Your task to perform on an android device: uninstall "Move to iOS" Image 0: 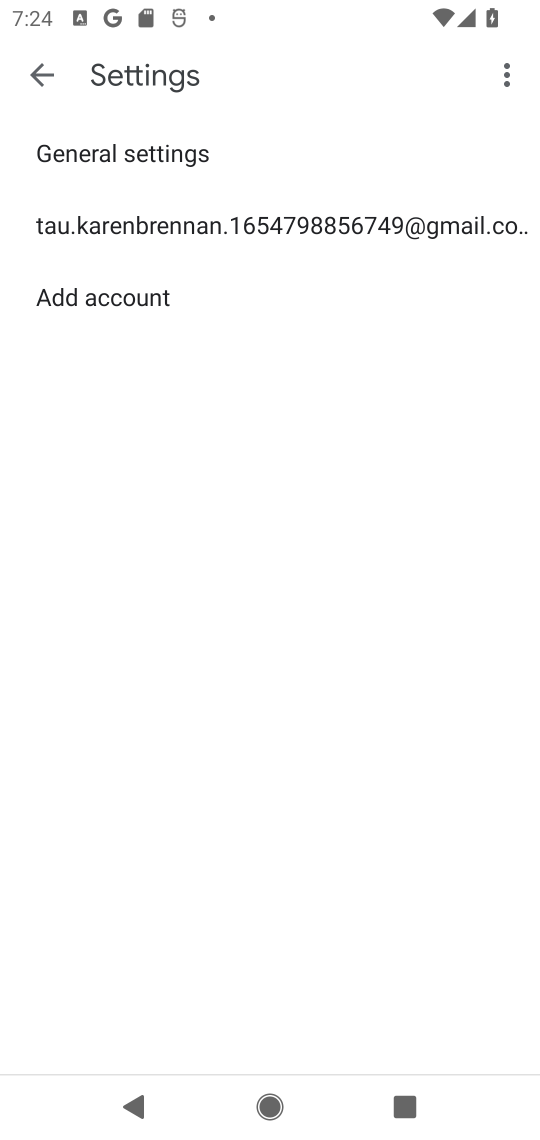
Step 0: press home button
Your task to perform on an android device: uninstall "Move to iOS" Image 1: 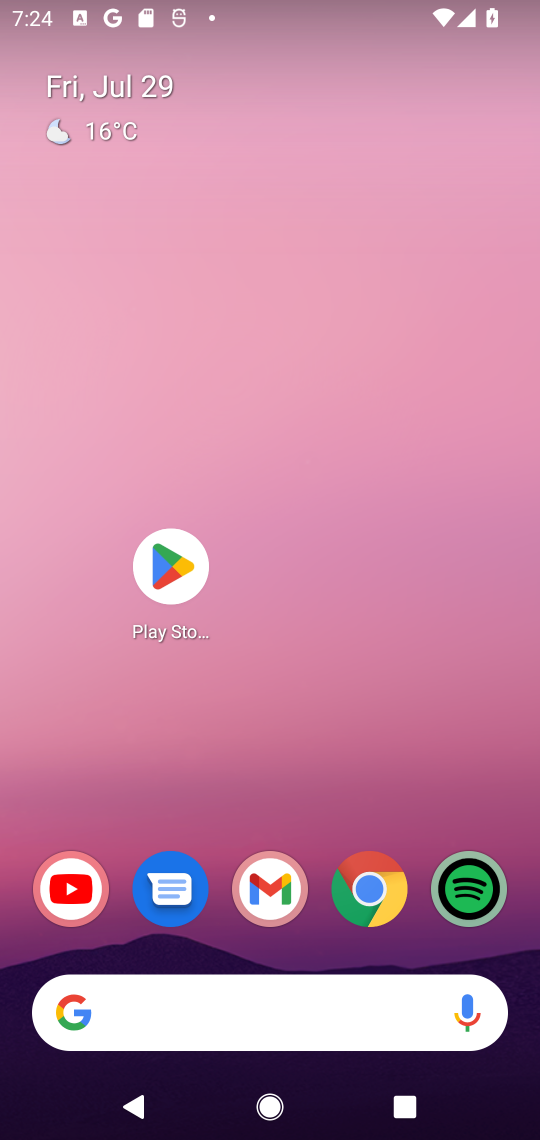
Step 1: click (187, 553)
Your task to perform on an android device: uninstall "Move to iOS" Image 2: 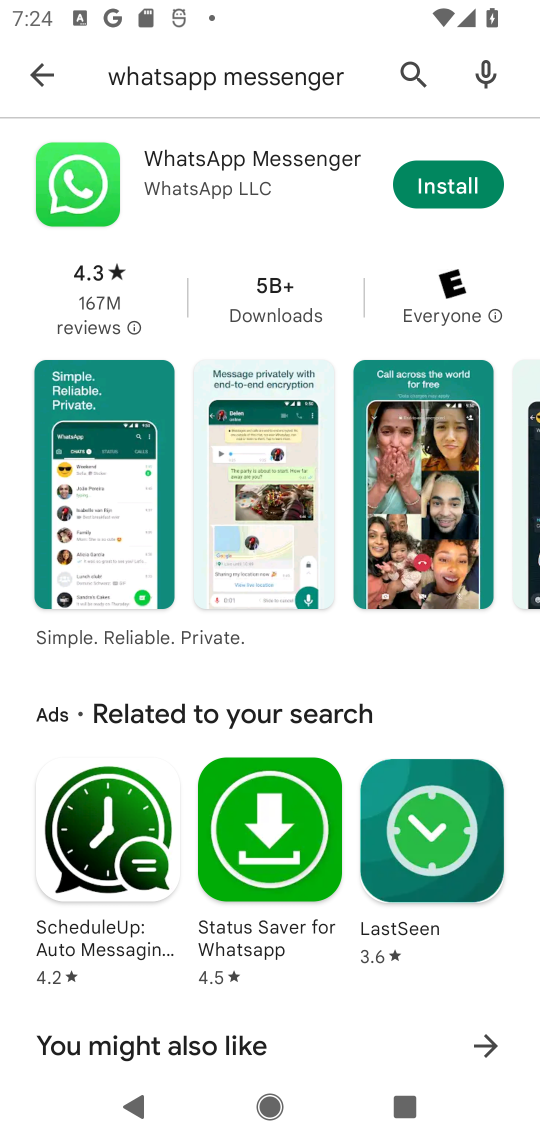
Step 2: click (408, 68)
Your task to perform on an android device: uninstall "Move to iOS" Image 3: 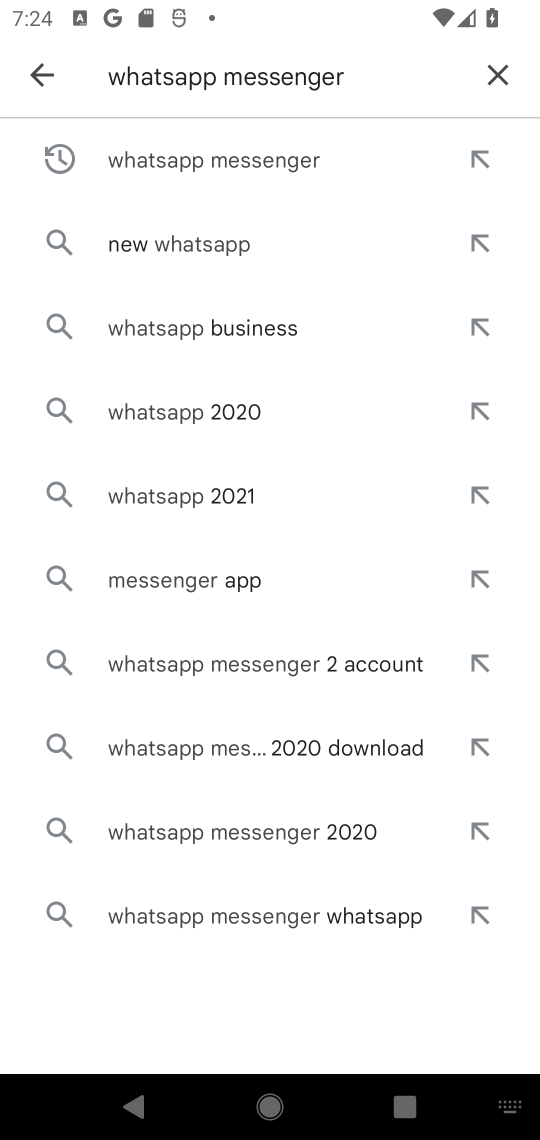
Step 3: click (488, 71)
Your task to perform on an android device: uninstall "Move to iOS" Image 4: 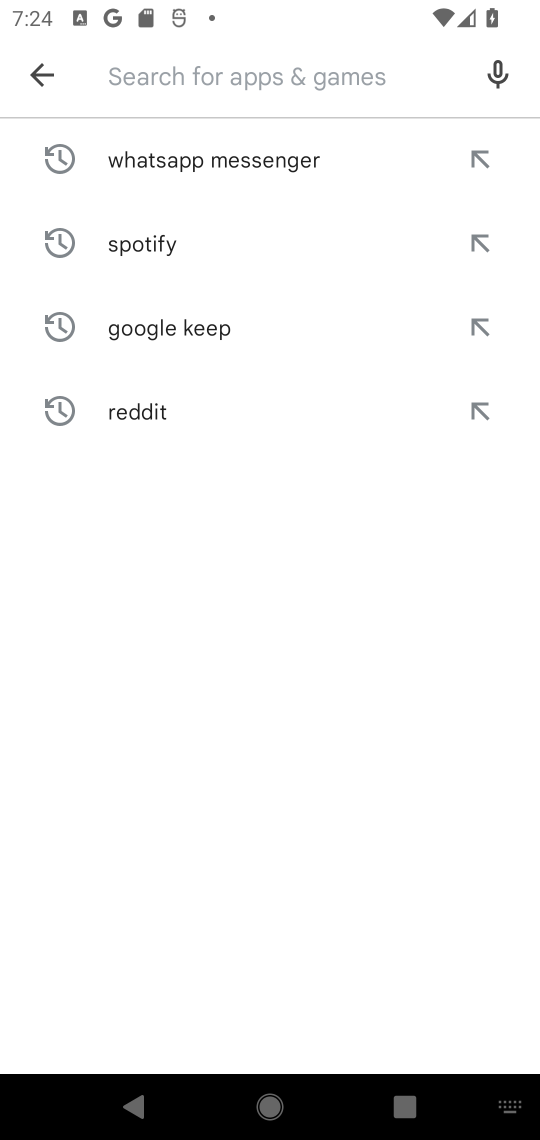
Step 4: type "Move to iOS"
Your task to perform on an android device: uninstall "Move to iOS" Image 5: 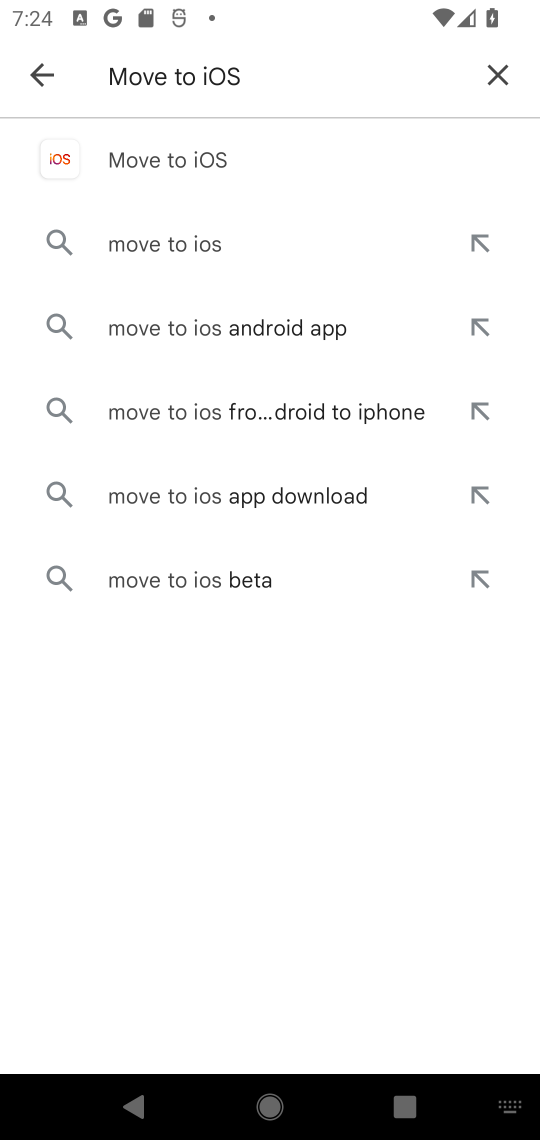
Step 5: click (172, 155)
Your task to perform on an android device: uninstall "Move to iOS" Image 6: 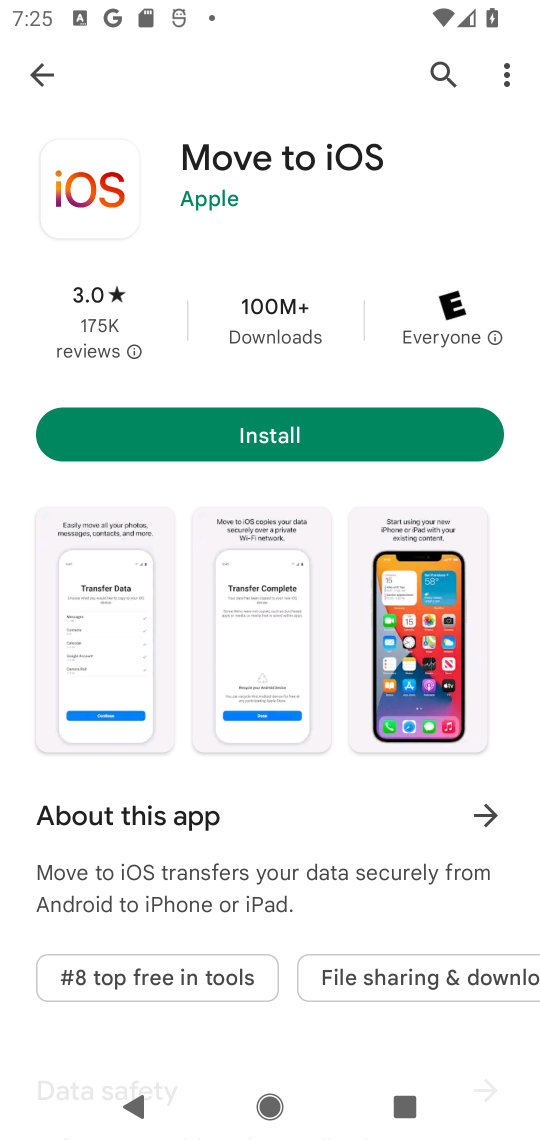
Step 6: task complete